Your task to perform on an android device: turn vacation reply on in the gmail app Image 0: 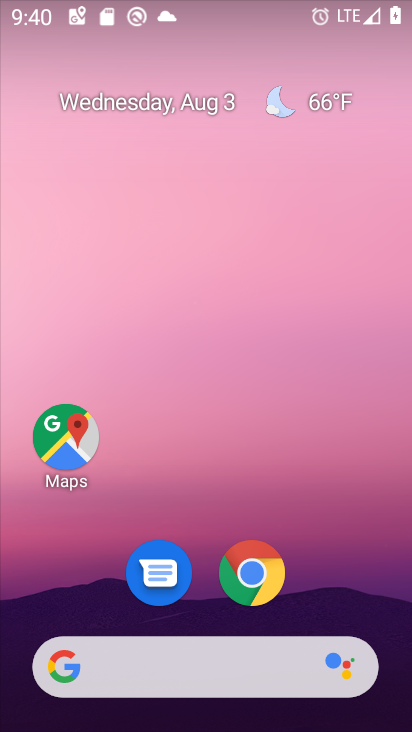
Step 0: drag from (356, 621) to (389, 13)
Your task to perform on an android device: turn vacation reply on in the gmail app Image 1: 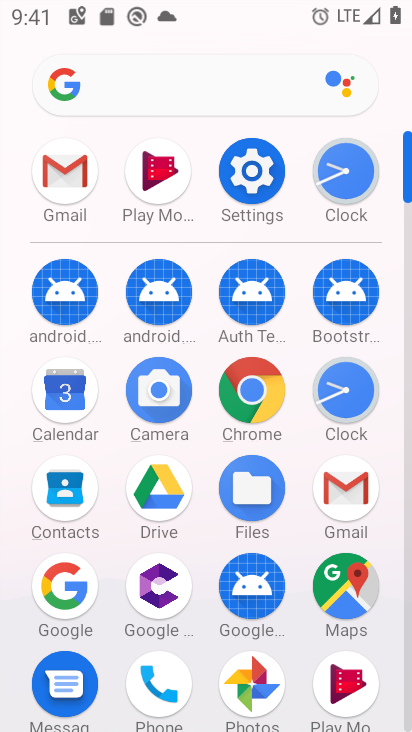
Step 1: click (66, 183)
Your task to perform on an android device: turn vacation reply on in the gmail app Image 2: 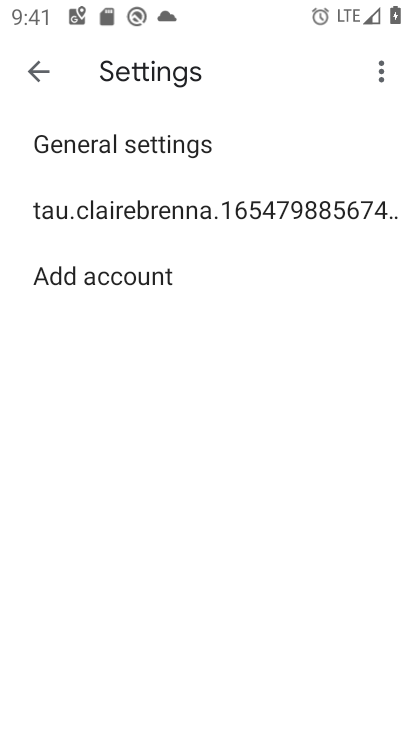
Step 2: click (141, 211)
Your task to perform on an android device: turn vacation reply on in the gmail app Image 3: 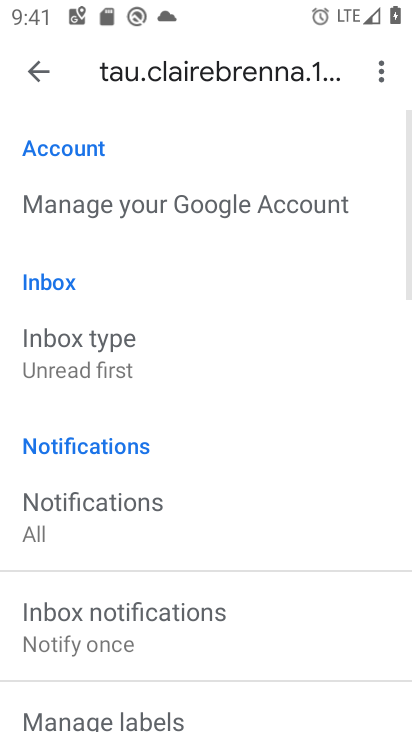
Step 3: drag from (186, 526) to (184, 108)
Your task to perform on an android device: turn vacation reply on in the gmail app Image 4: 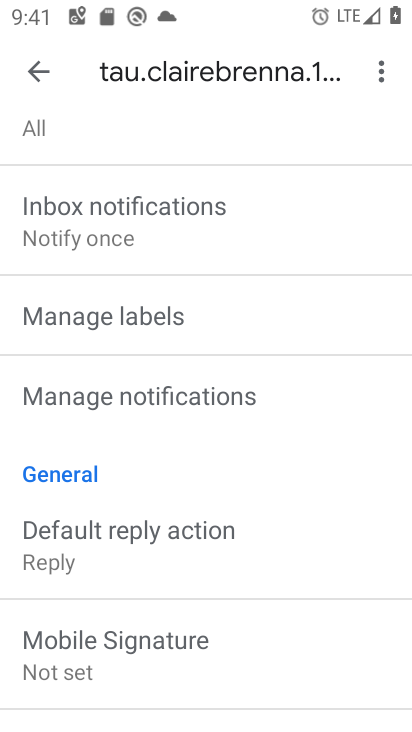
Step 4: drag from (205, 601) to (180, 158)
Your task to perform on an android device: turn vacation reply on in the gmail app Image 5: 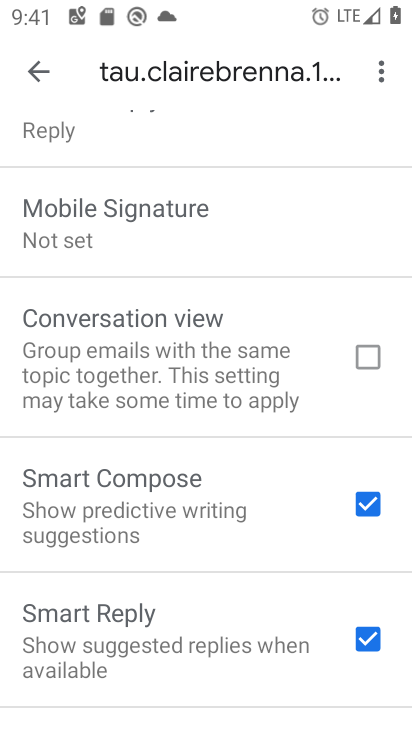
Step 5: drag from (140, 592) to (144, 205)
Your task to perform on an android device: turn vacation reply on in the gmail app Image 6: 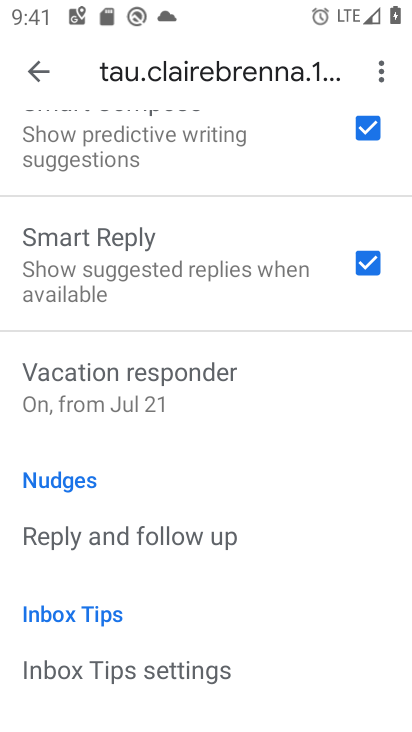
Step 6: click (104, 399)
Your task to perform on an android device: turn vacation reply on in the gmail app Image 7: 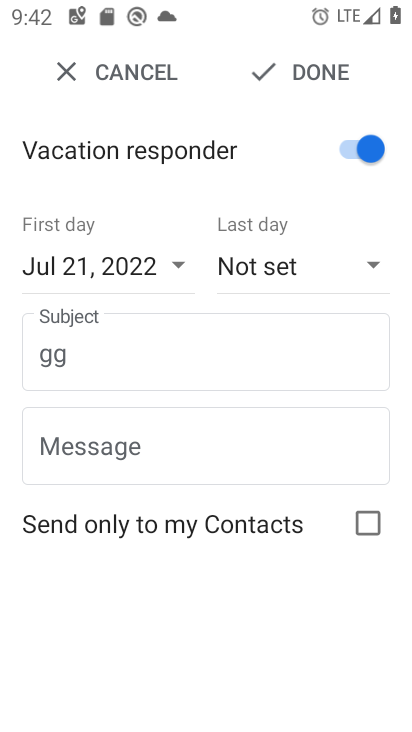
Step 7: click (297, 69)
Your task to perform on an android device: turn vacation reply on in the gmail app Image 8: 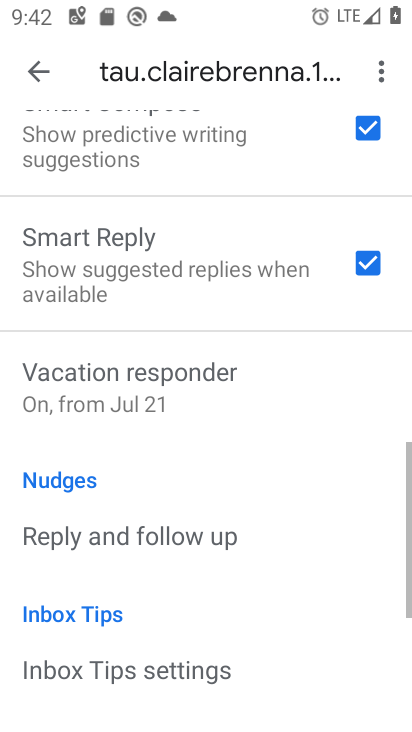
Step 8: task complete